Your task to perform on an android device: Go to display settings Image 0: 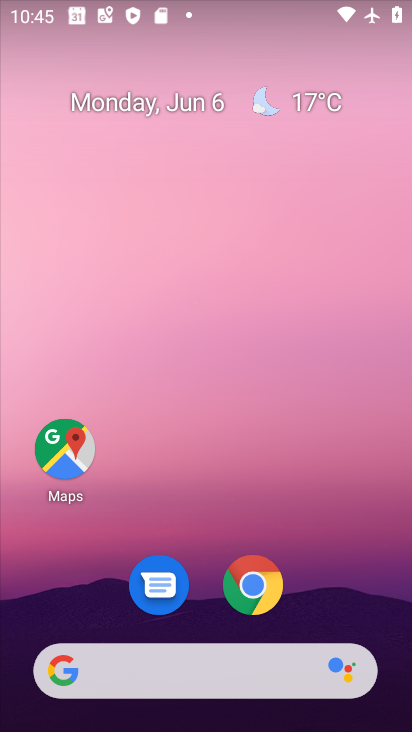
Step 0: drag from (225, 488) to (245, 55)
Your task to perform on an android device: Go to display settings Image 1: 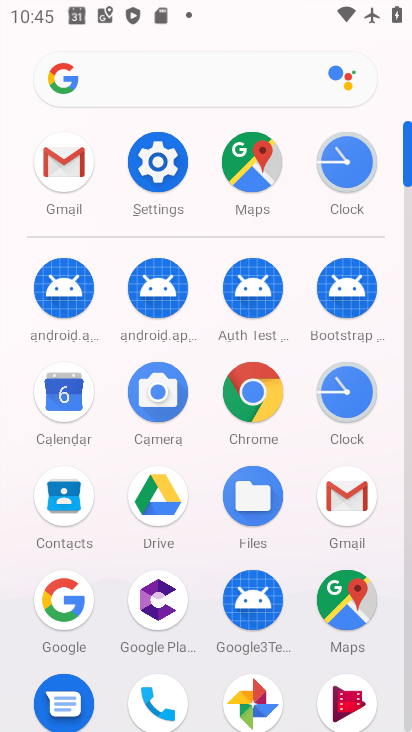
Step 1: click (172, 161)
Your task to perform on an android device: Go to display settings Image 2: 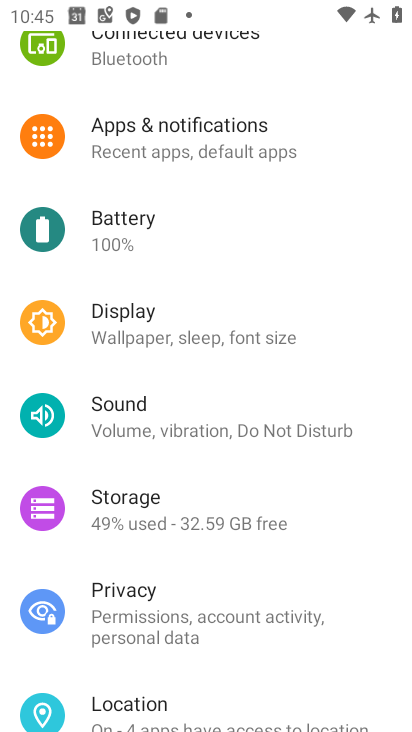
Step 2: click (162, 334)
Your task to perform on an android device: Go to display settings Image 3: 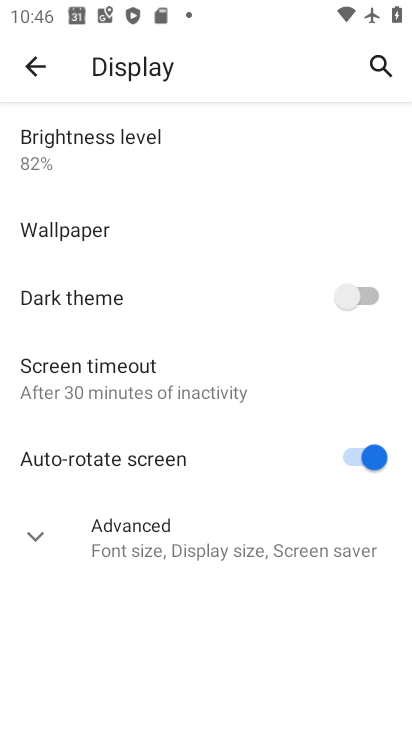
Step 3: task complete